Your task to perform on an android device: check google app version Image 0: 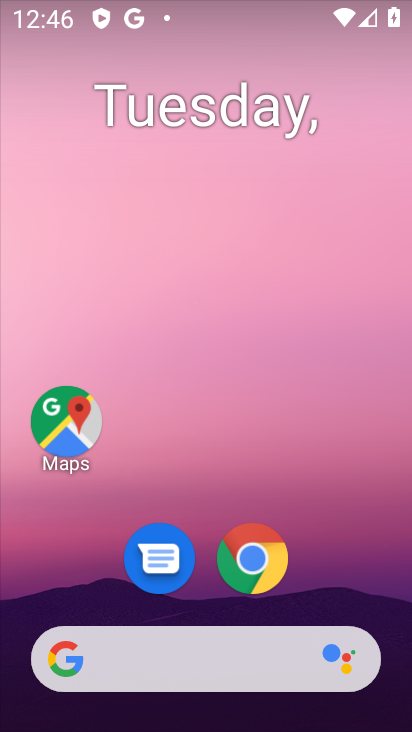
Step 0: drag from (365, 596) to (366, 224)
Your task to perform on an android device: check google app version Image 1: 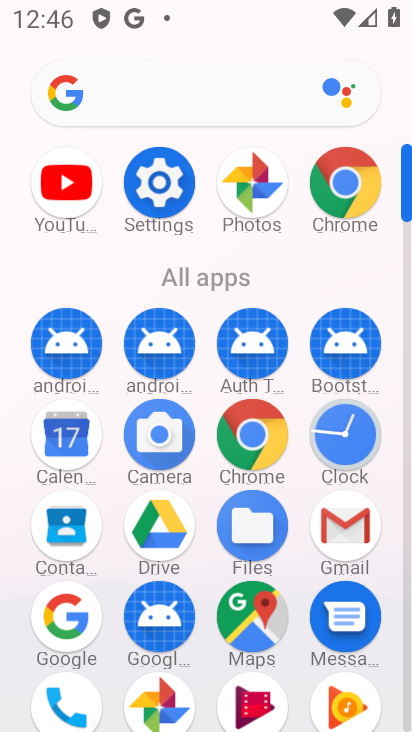
Step 1: click (49, 626)
Your task to perform on an android device: check google app version Image 2: 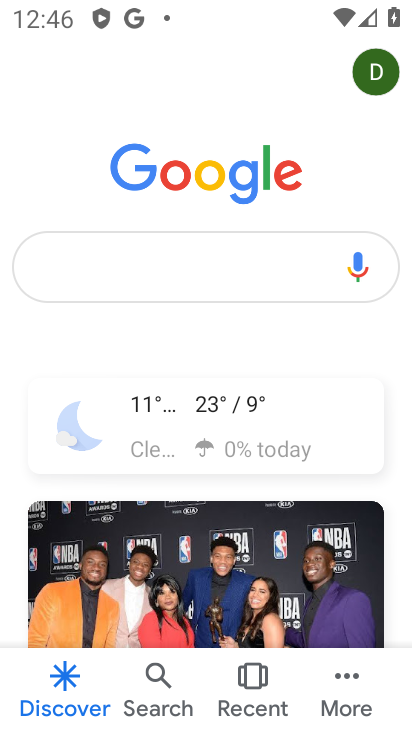
Step 2: click (326, 688)
Your task to perform on an android device: check google app version Image 3: 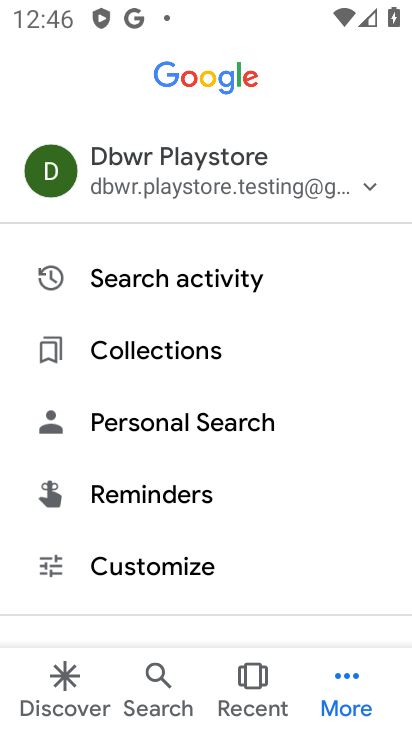
Step 3: drag from (323, 548) to (324, 438)
Your task to perform on an android device: check google app version Image 4: 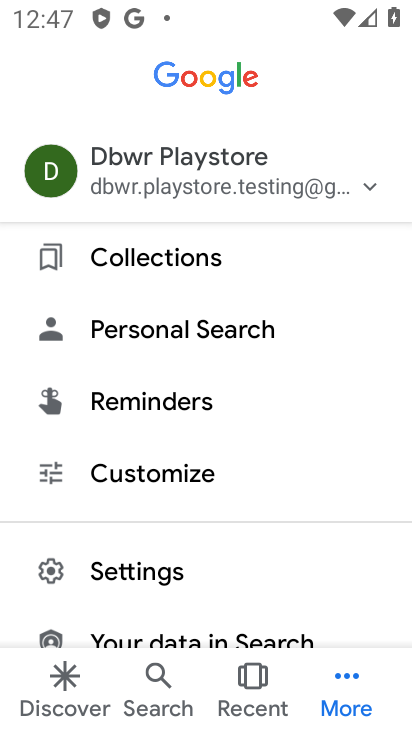
Step 4: drag from (306, 568) to (317, 464)
Your task to perform on an android device: check google app version Image 5: 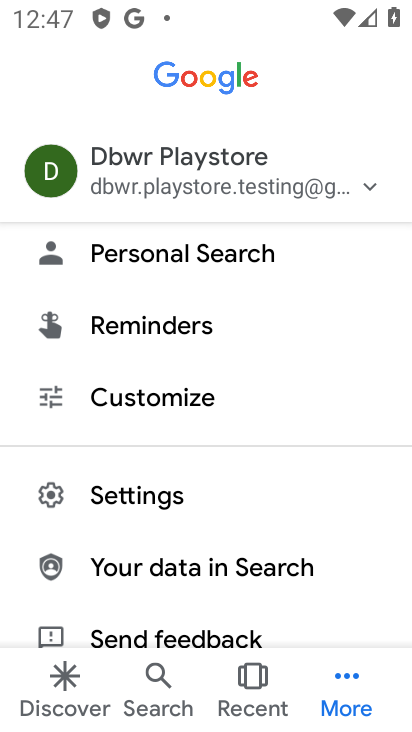
Step 5: click (120, 500)
Your task to perform on an android device: check google app version Image 6: 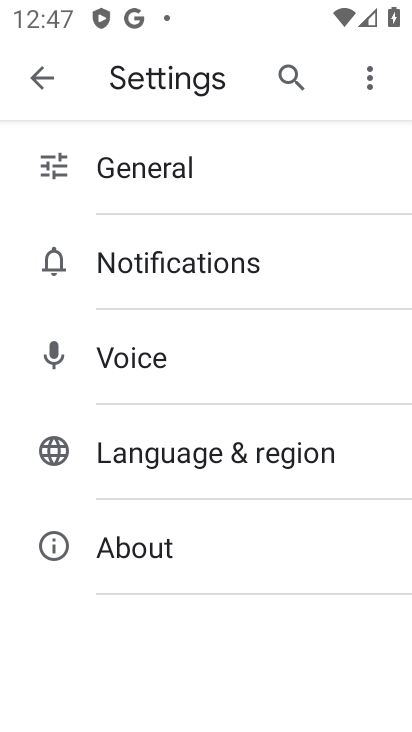
Step 6: click (168, 558)
Your task to perform on an android device: check google app version Image 7: 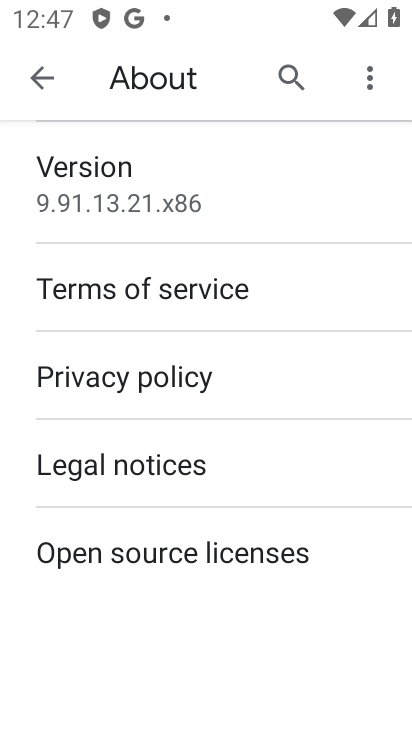
Step 7: task complete